Your task to perform on an android device: Open Google Chrome and open the bookmarks view Image 0: 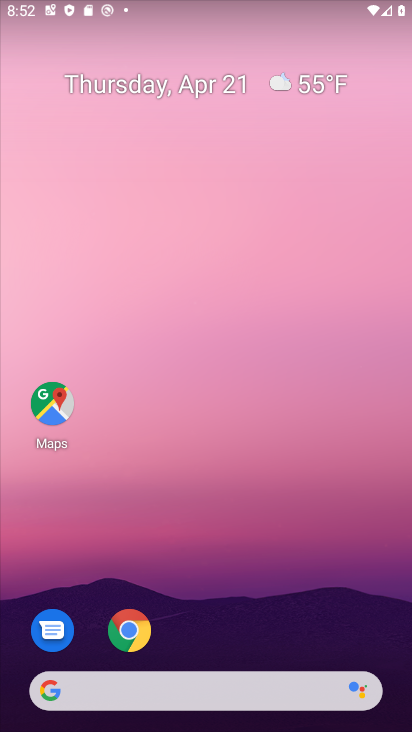
Step 0: click (129, 642)
Your task to perform on an android device: Open Google Chrome and open the bookmarks view Image 1: 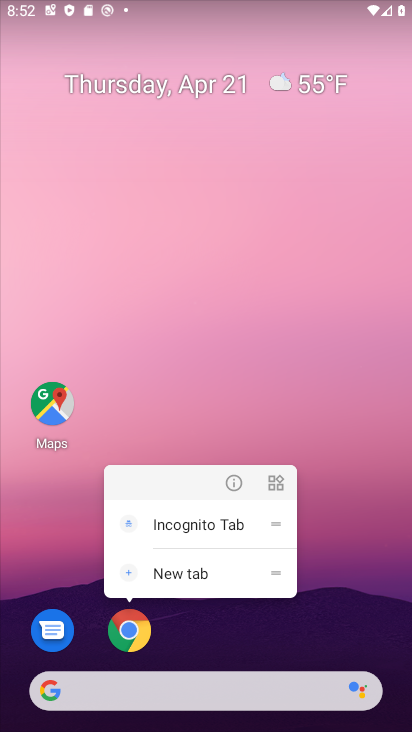
Step 1: click (125, 631)
Your task to perform on an android device: Open Google Chrome and open the bookmarks view Image 2: 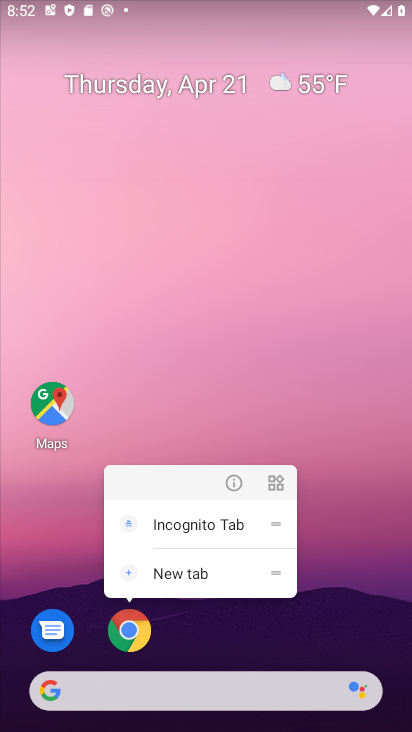
Step 2: click (125, 626)
Your task to perform on an android device: Open Google Chrome and open the bookmarks view Image 3: 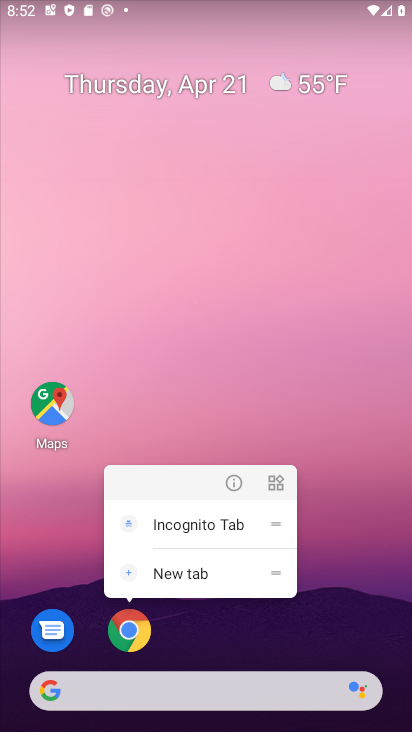
Step 3: click (134, 629)
Your task to perform on an android device: Open Google Chrome and open the bookmarks view Image 4: 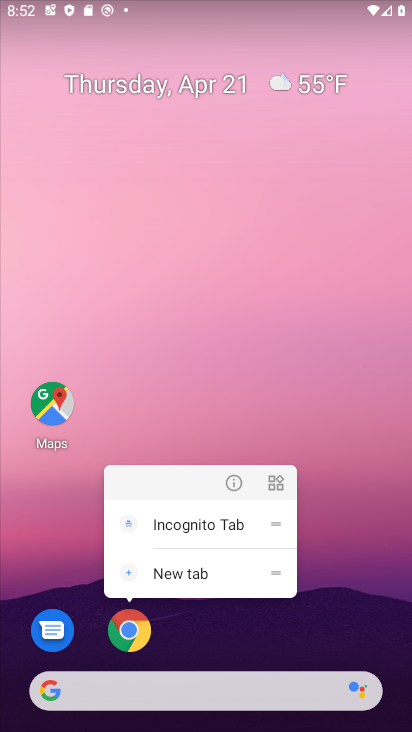
Step 4: click (135, 647)
Your task to perform on an android device: Open Google Chrome and open the bookmarks view Image 5: 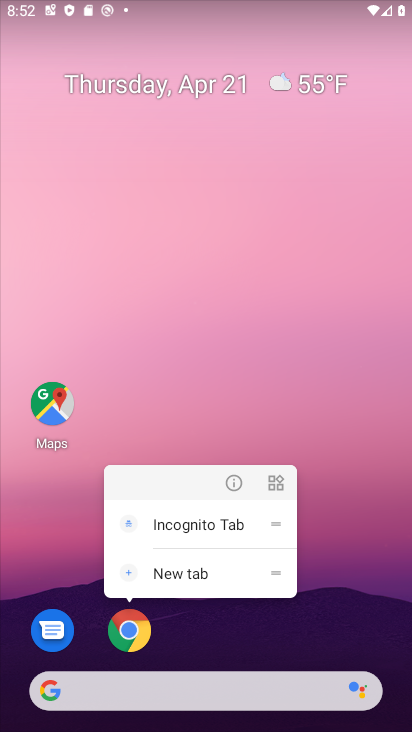
Step 5: click (131, 634)
Your task to perform on an android device: Open Google Chrome and open the bookmarks view Image 6: 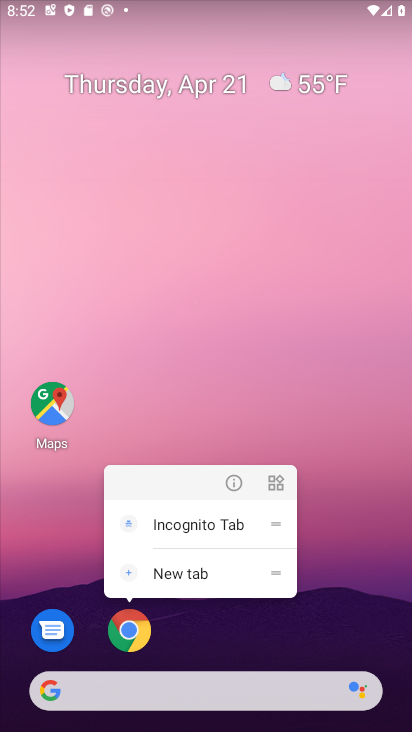
Step 6: click (139, 633)
Your task to perform on an android device: Open Google Chrome and open the bookmarks view Image 7: 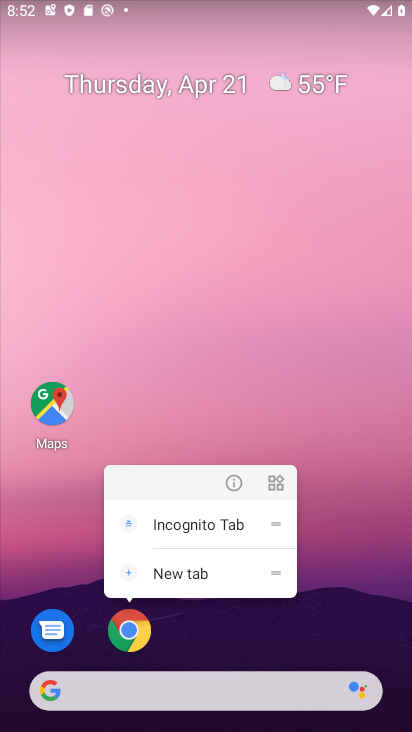
Step 7: click (142, 621)
Your task to perform on an android device: Open Google Chrome and open the bookmarks view Image 8: 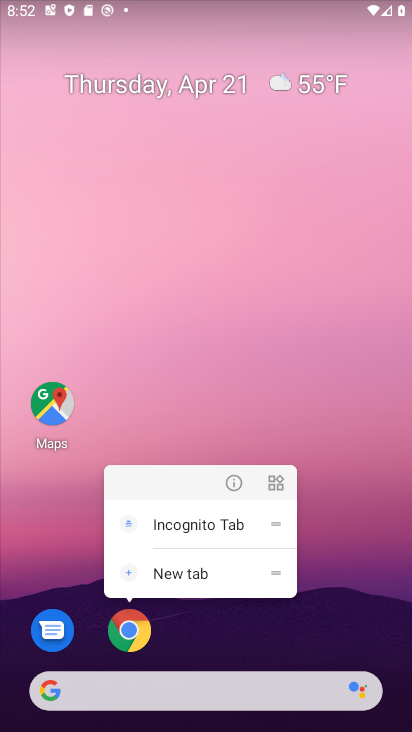
Step 8: click (113, 629)
Your task to perform on an android device: Open Google Chrome and open the bookmarks view Image 9: 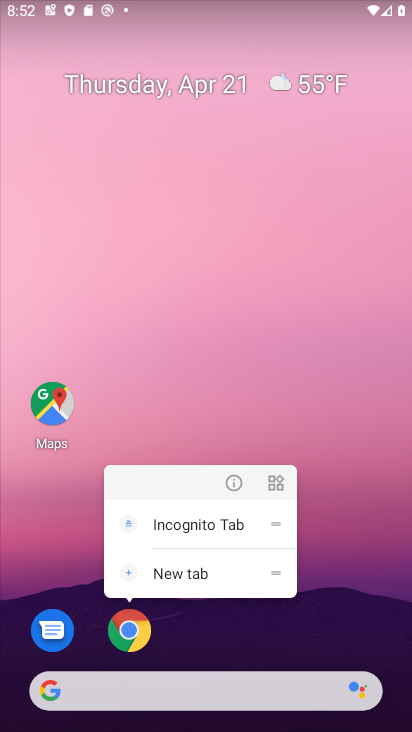
Step 9: click (155, 637)
Your task to perform on an android device: Open Google Chrome and open the bookmarks view Image 10: 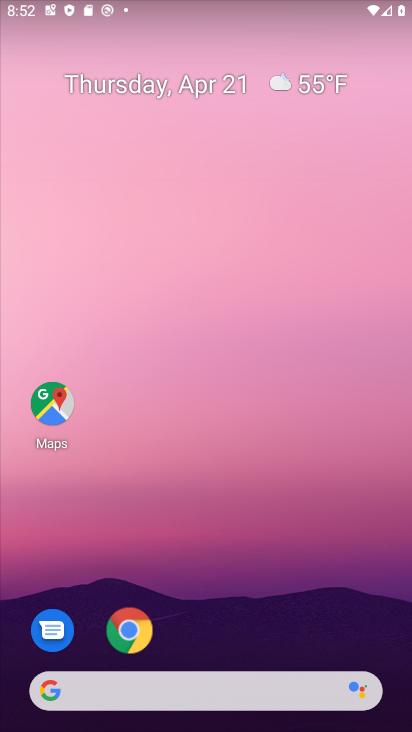
Step 10: click (146, 631)
Your task to perform on an android device: Open Google Chrome and open the bookmarks view Image 11: 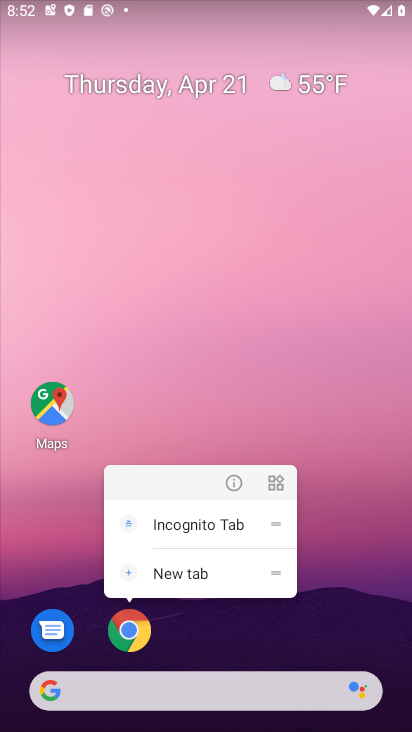
Step 11: drag from (334, 623) to (407, 219)
Your task to perform on an android device: Open Google Chrome and open the bookmarks view Image 12: 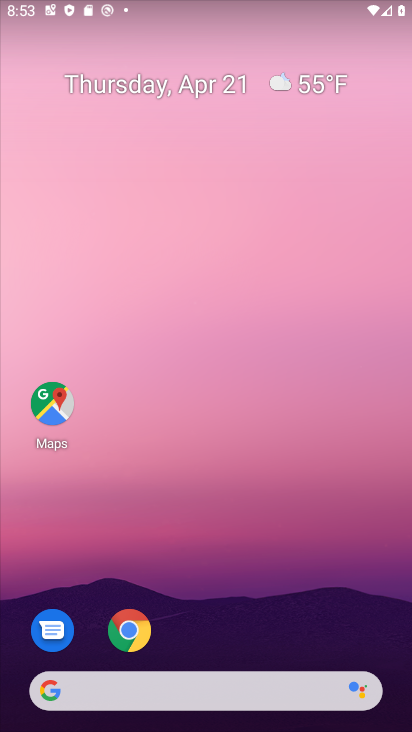
Step 12: drag from (231, 598) to (340, 2)
Your task to perform on an android device: Open Google Chrome and open the bookmarks view Image 13: 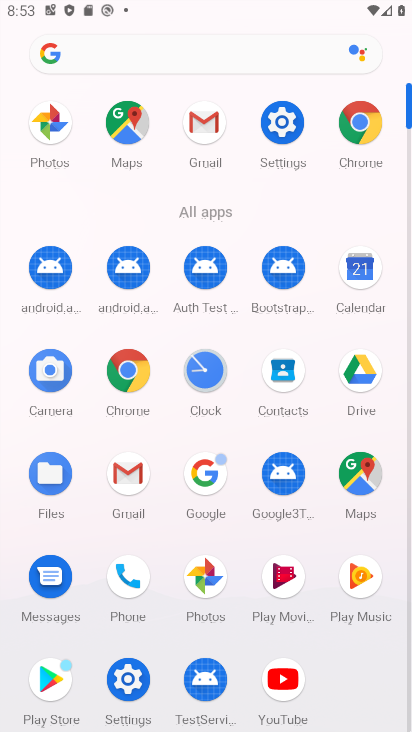
Step 13: click (133, 368)
Your task to perform on an android device: Open Google Chrome and open the bookmarks view Image 14: 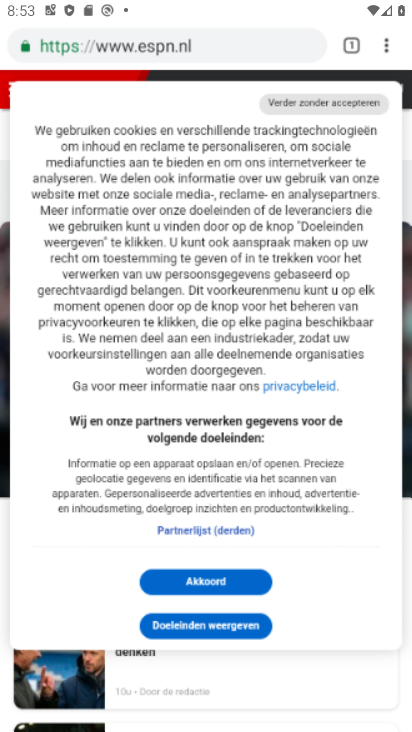
Step 14: click (389, 56)
Your task to perform on an android device: Open Google Chrome and open the bookmarks view Image 15: 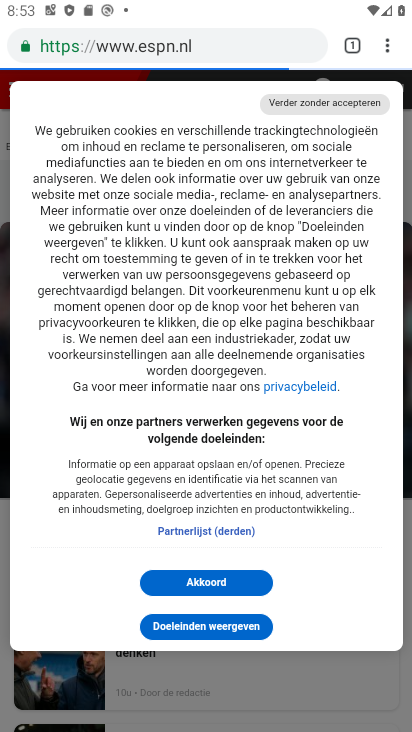
Step 15: task complete